Your task to perform on an android device: open app "Microsoft Outlook" Image 0: 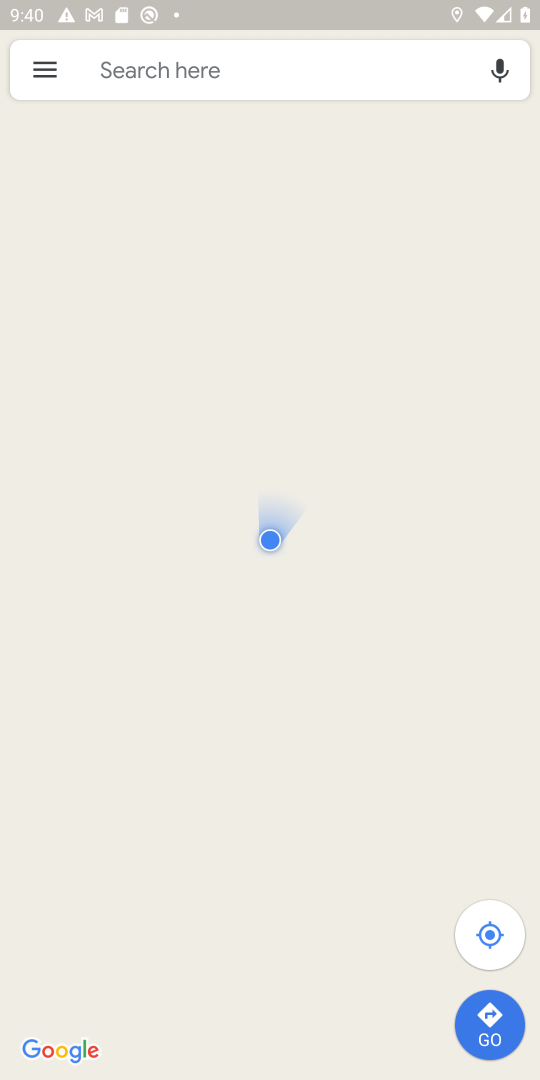
Step 0: press home button
Your task to perform on an android device: open app "Microsoft Outlook" Image 1: 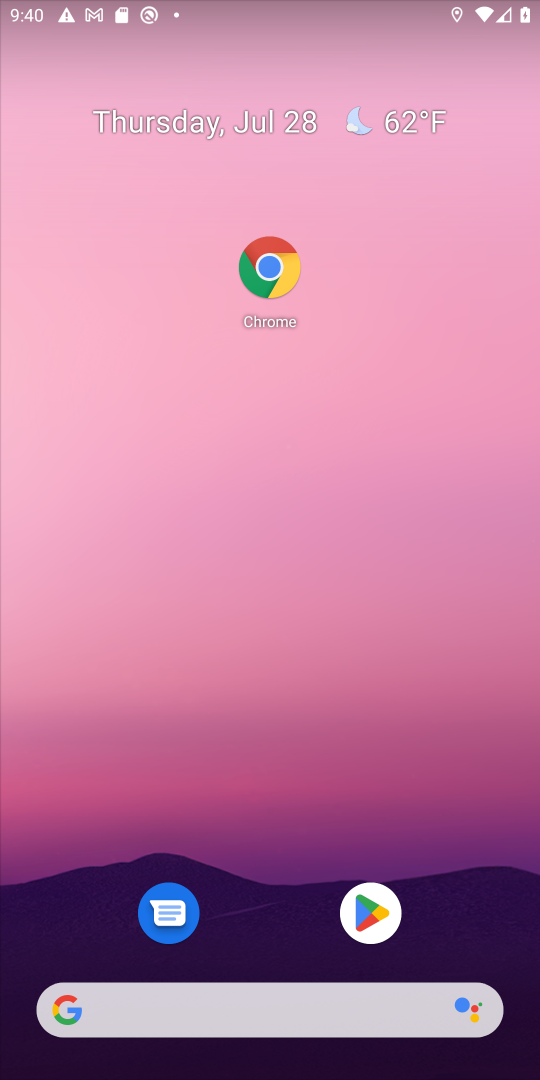
Step 1: press home button
Your task to perform on an android device: open app "Microsoft Outlook" Image 2: 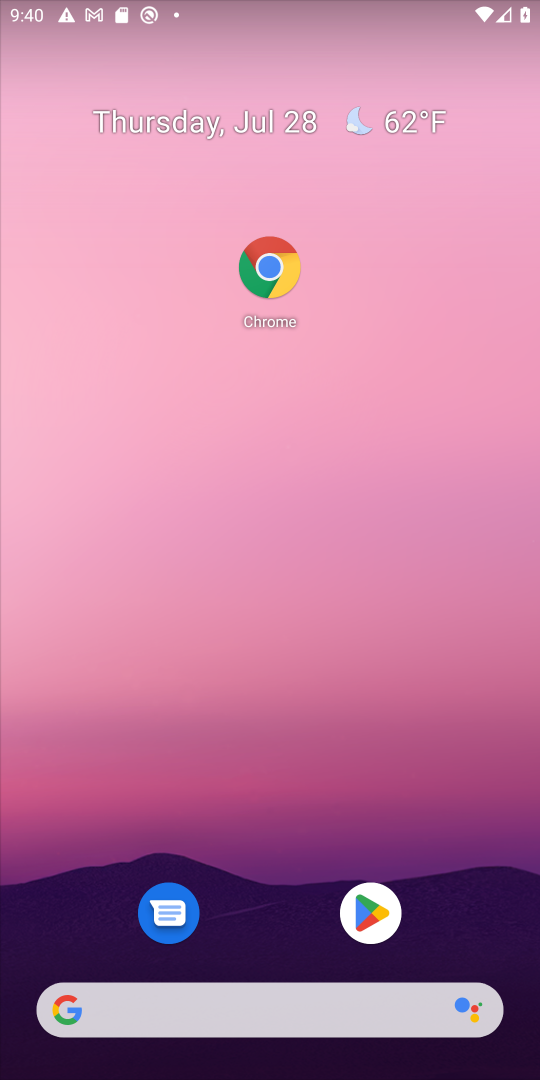
Step 2: drag from (423, 1044) to (407, 222)
Your task to perform on an android device: open app "Microsoft Outlook" Image 3: 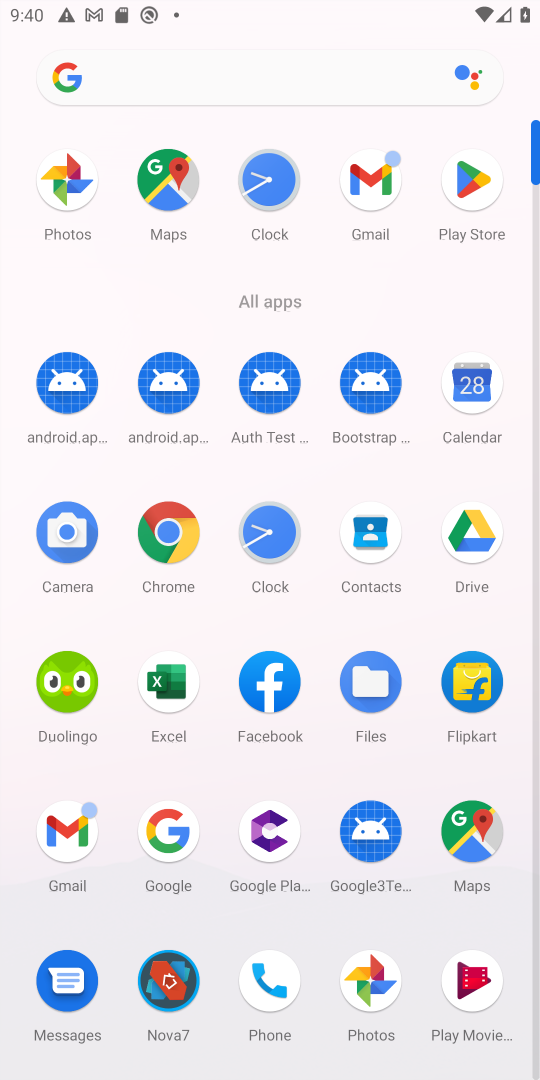
Step 3: click (473, 200)
Your task to perform on an android device: open app "Microsoft Outlook" Image 4: 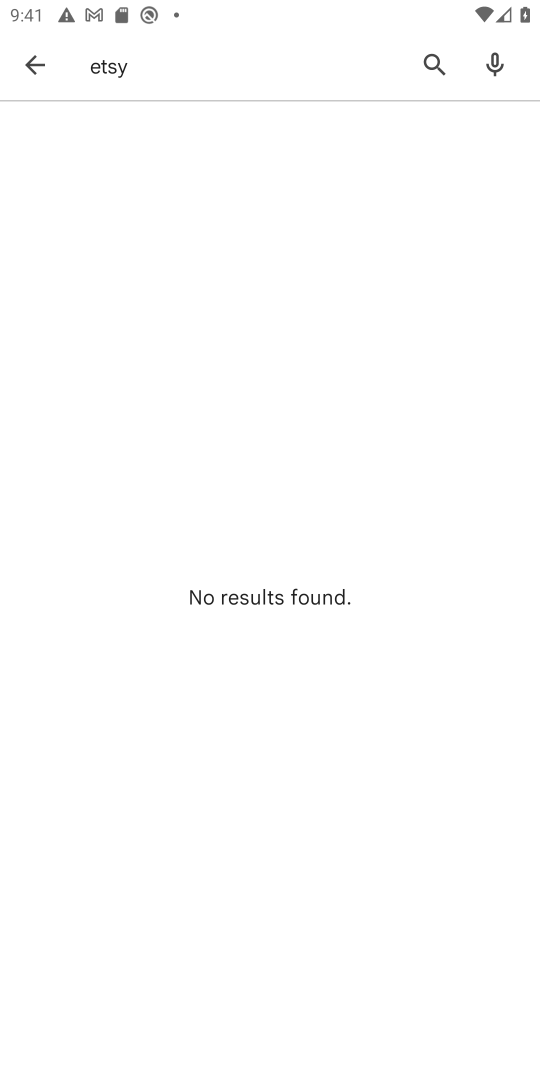
Step 4: click (436, 51)
Your task to perform on an android device: open app "Microsoft Outlook" Image 5: 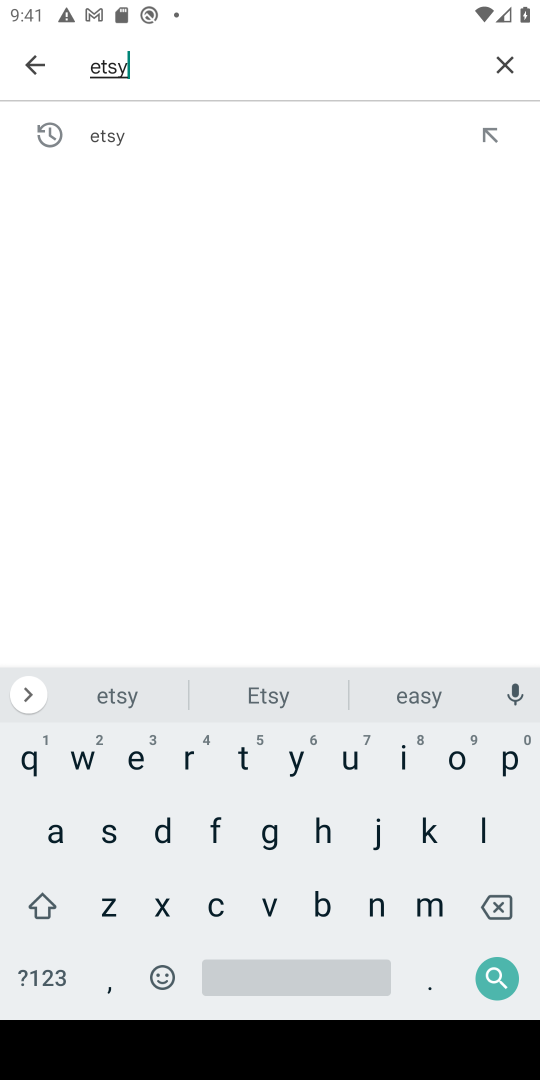
Step 5: click (497, 66)
Your task to perform on an android device: open app "Microsoft Outlook" Image 6: 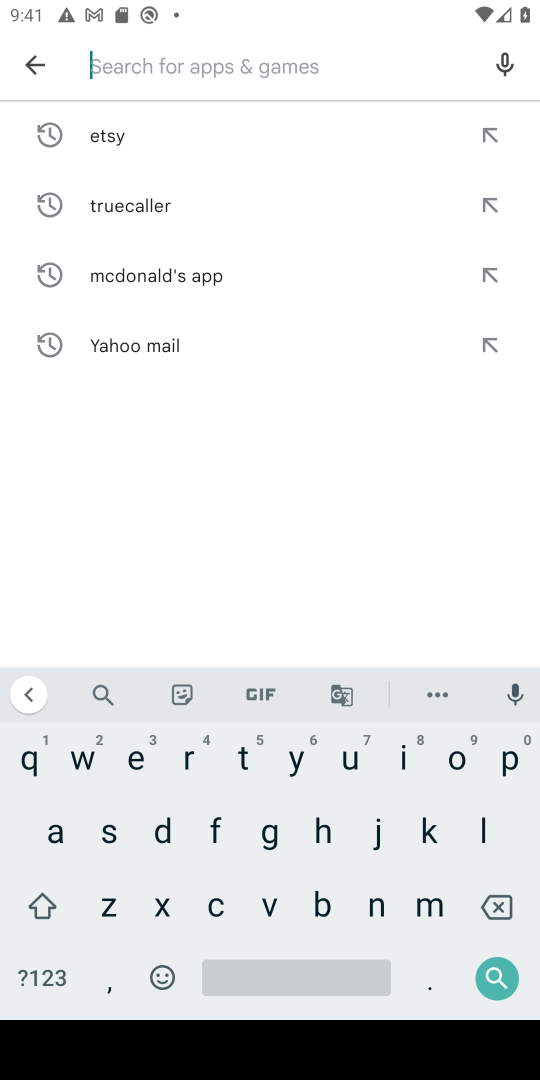
Step 6: click (453, 764)
Your task to perform on an android device: open app "Microsoft Outlook" Image 7: 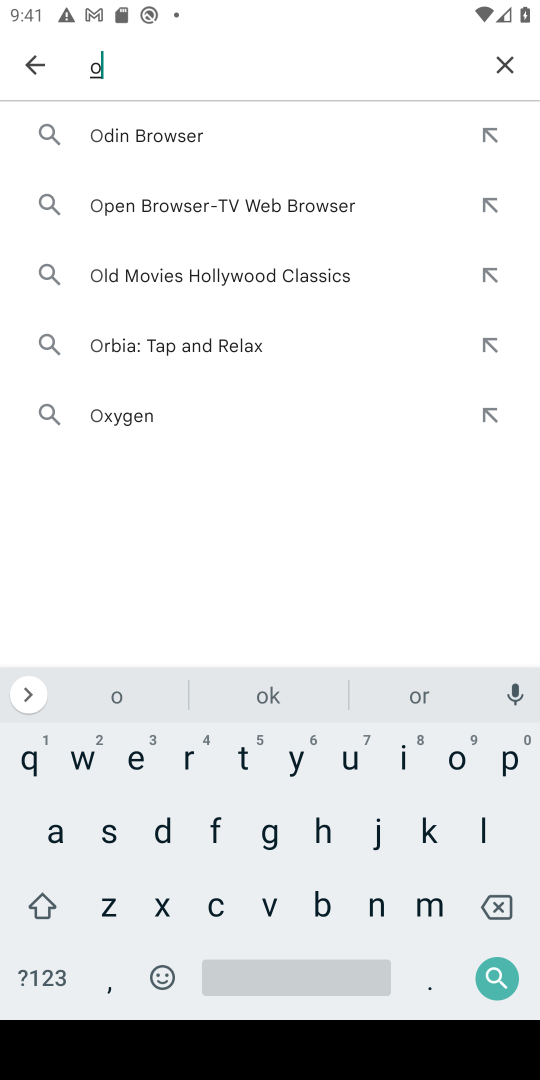
Step 7: click (348, 760)
Your task to perform on an android device: open app "Microsoft Outlook" Image 8: 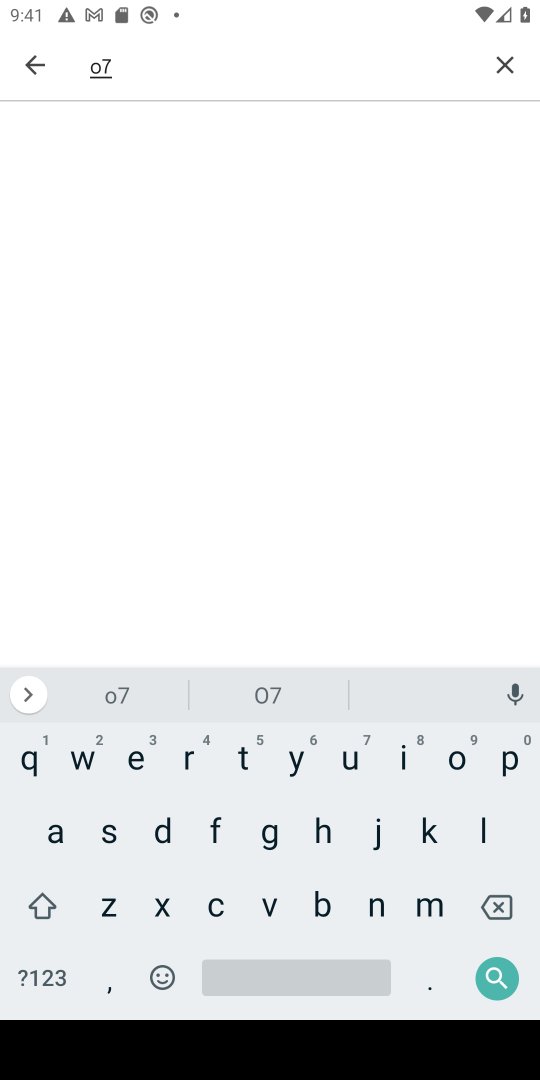
Step 8: click (491, 914)
Your task to perform on an android device: open app "Microsoft Outlook" Image 9: 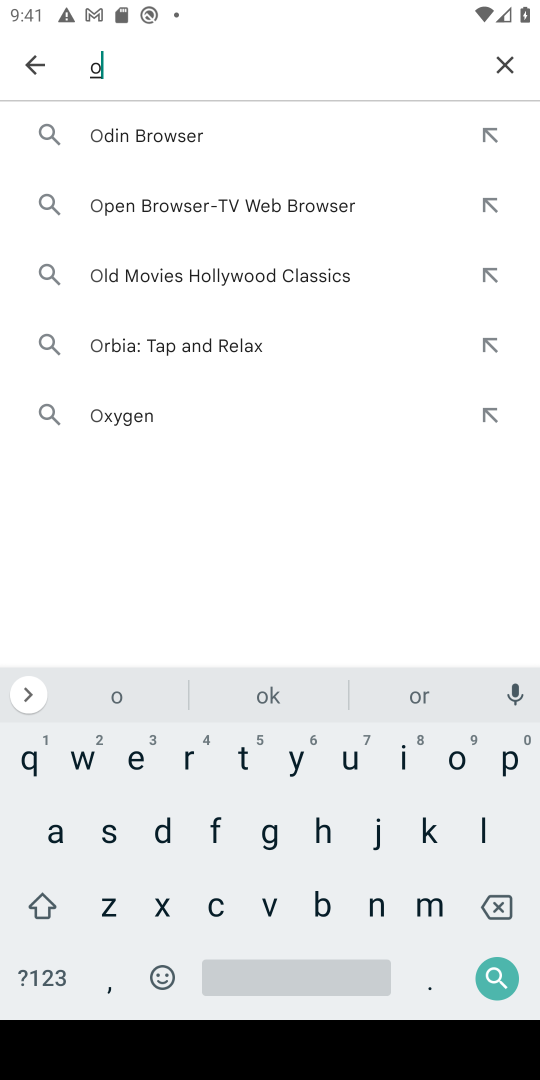
Step 9: click (353, 759)
Your task to perform on an android device: open app "Microsoft Outlook" Image 10: 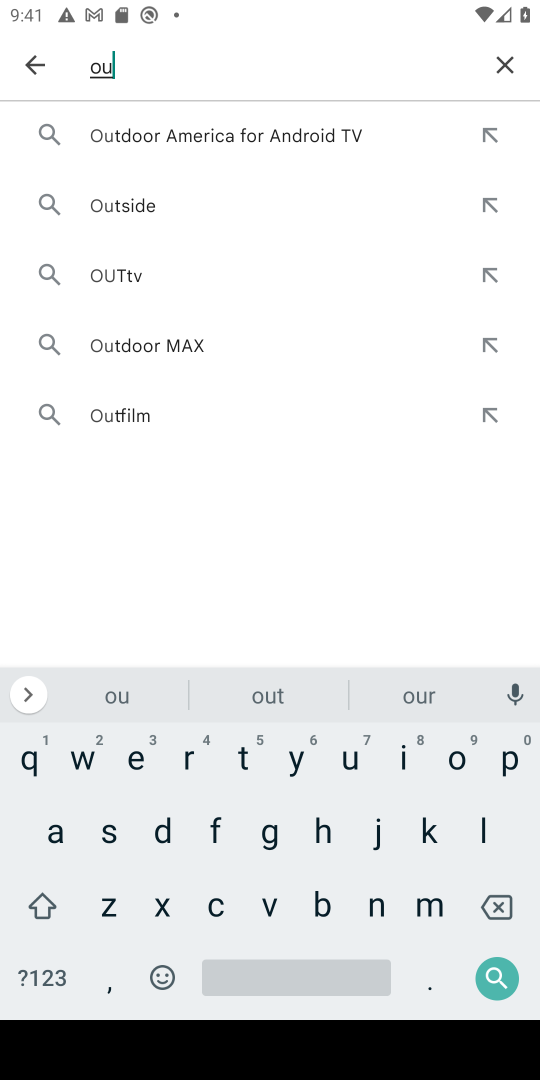
Step 10: click (231, 760)
Your task to perform on an android device: open app "Microsoft Outlook" Image 11: 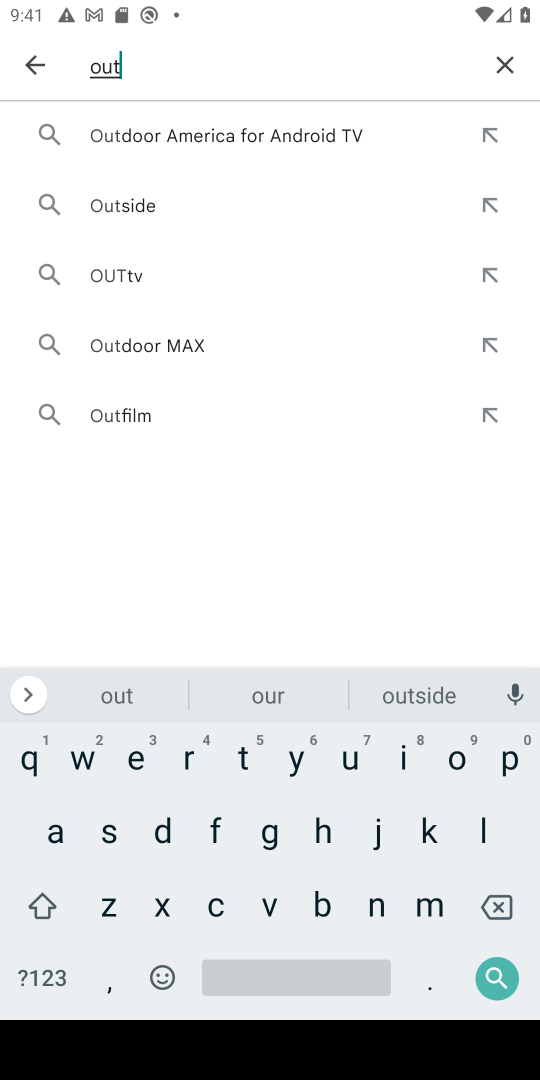
Step 11: click (485, 837)
Your task to perform on an android device: open app "Microsoft Outlook" Image 12: 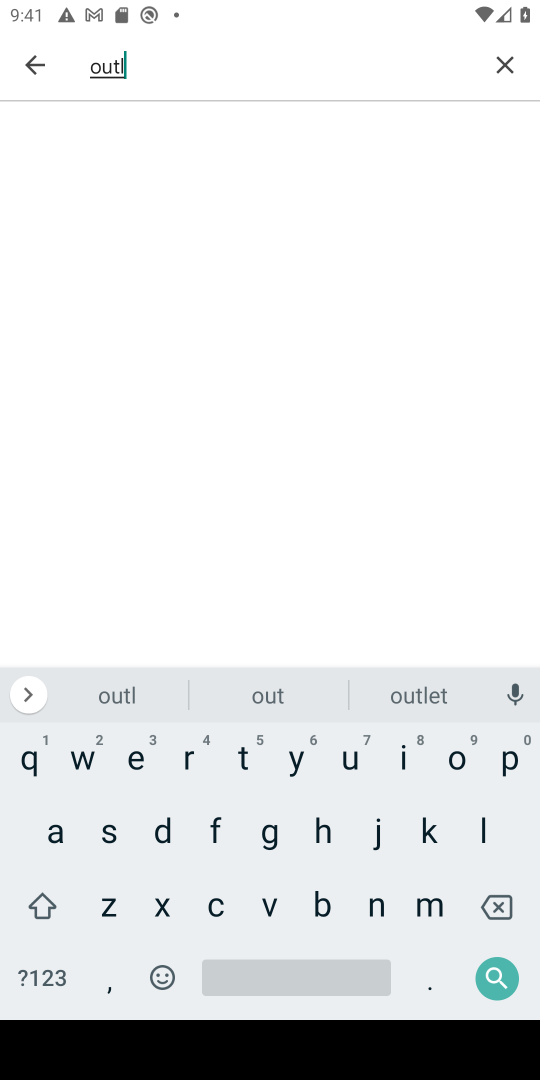
Step 12: click (458, 769)
Your task to perform on an android device: open app "Microsoft Outlook" Image 13: 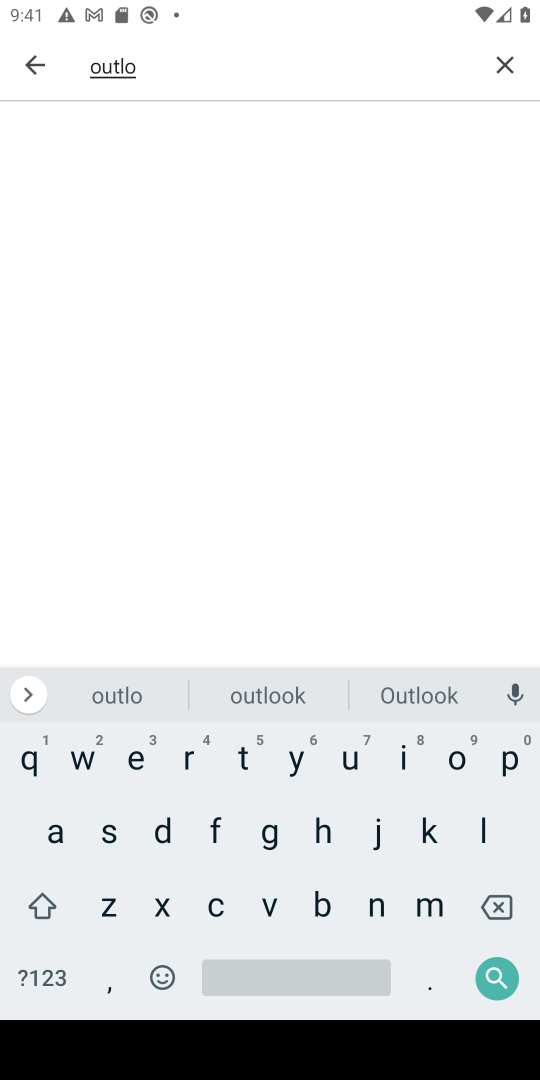
Step 13: click (458, 769)
Your task to perform on an android device: open app "Microsoft Outlook" Image 14: 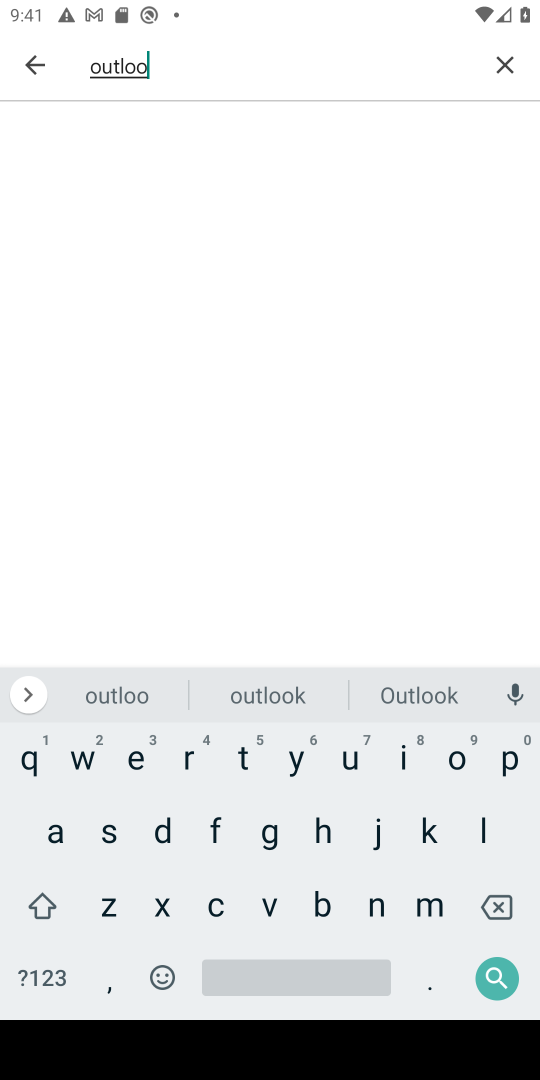
Step 14: click (420, 700)
Your task to perform on an android device: open app "Microsoft Outlook" Image 15: 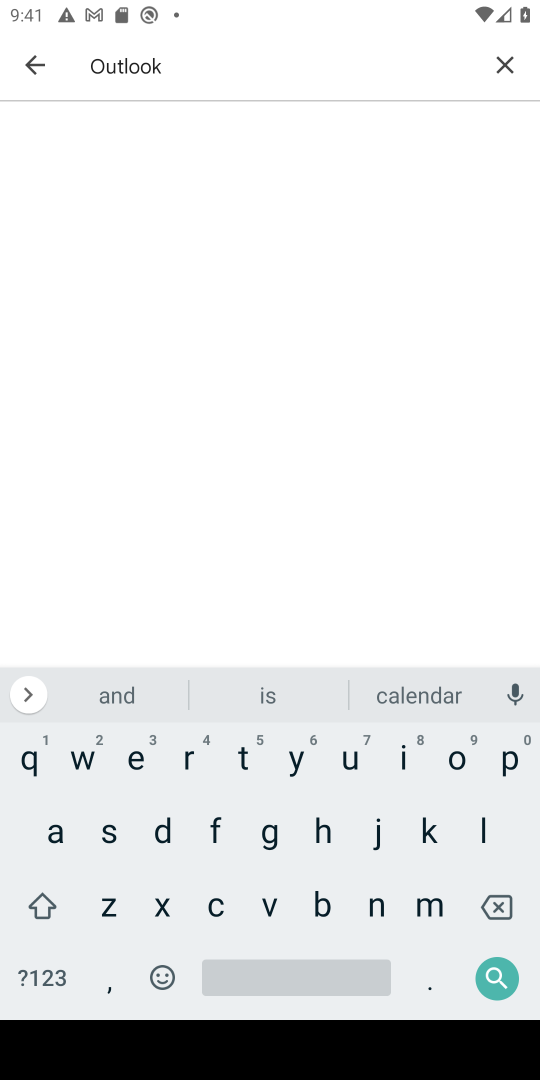
Step 15: click (499, 967)
Your task to perform on an android device: open app "Microsoft Outlook" Image 16: 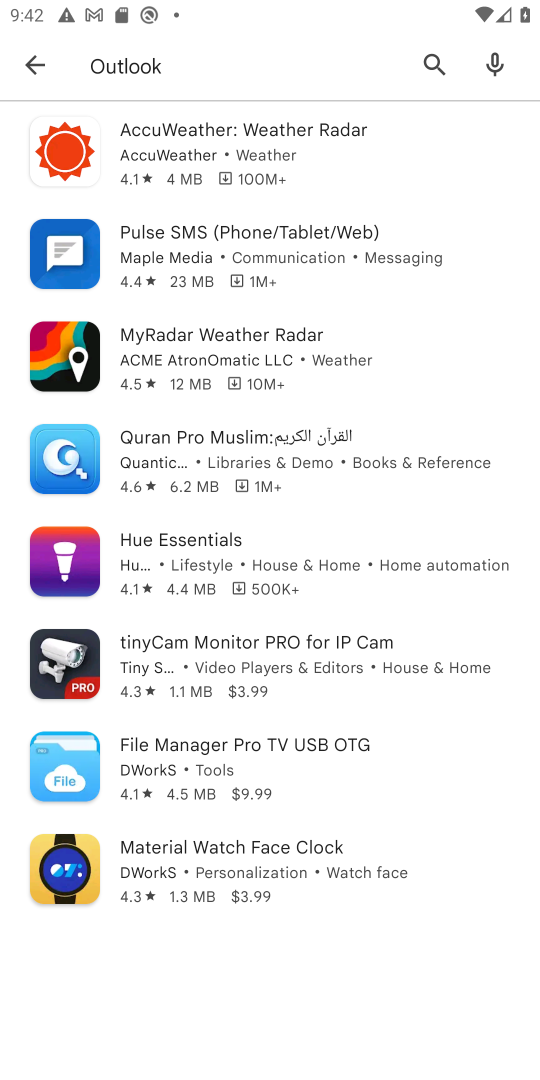
Step 16: task complete